Your task to perform on an android device: Go to Reddit.com Image 0: 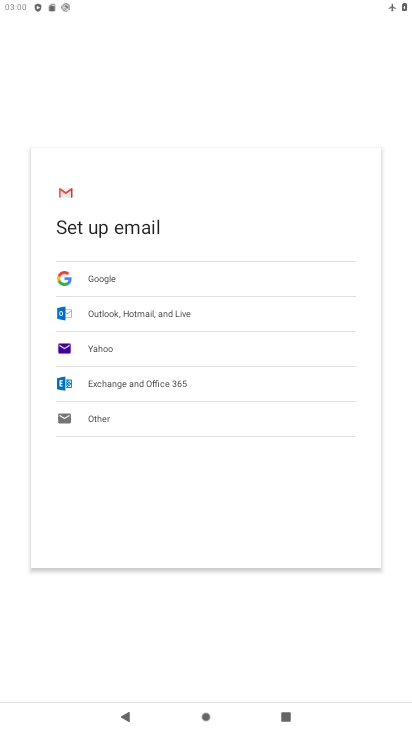
Step 0: press home button
Your task to perform on an android device: Go to Reddit.com Image 1: 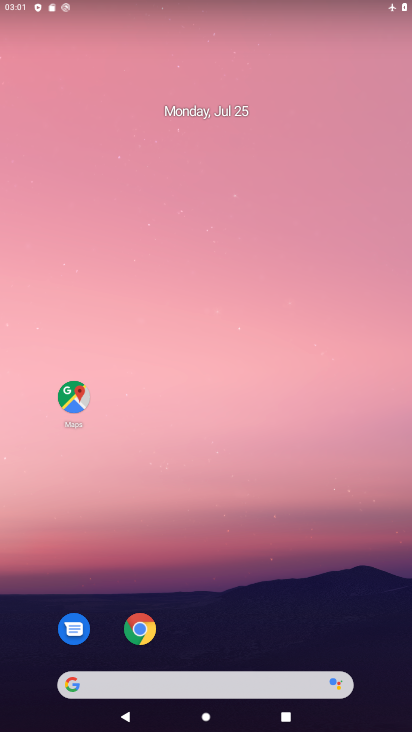
Step 1: click (139, 635)
Your task to perform on an android device: Go to Reddit.com Image 2: 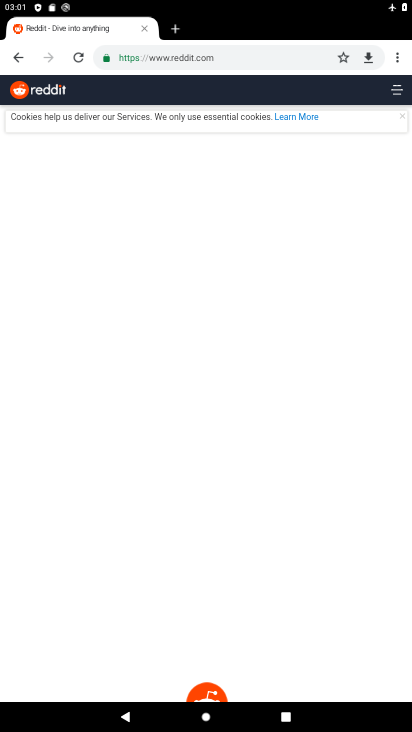
Step 2: task complete